Your task to perform on an android device: turn notification dots off Image 0: 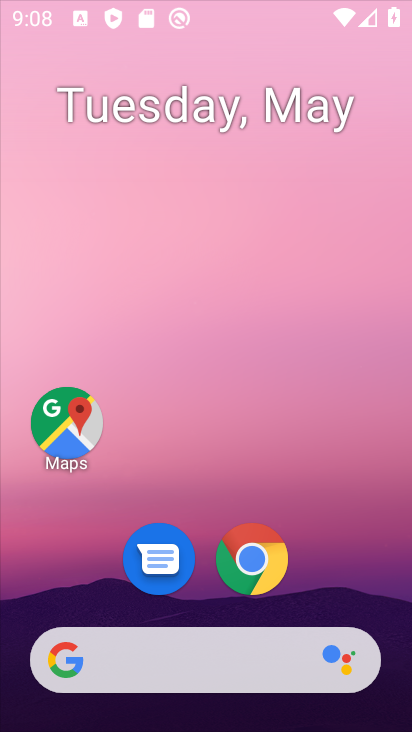
Step 0: click (220, 64)
Your task to perform on an android device: turn notification dots off Image 1: 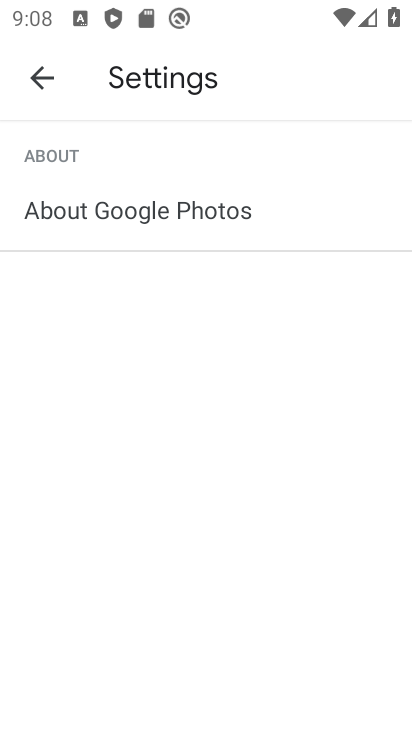
Step 1: press home button
Your task to perform on an android device: turn notification dots off Image 2: 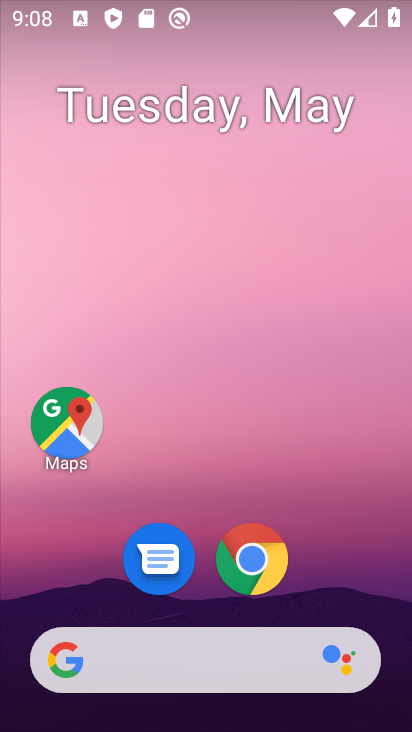
Step 2: drag from (189, 651) to (186, 125)
Your task to perform on an android device: turn notification dots off Image 3: 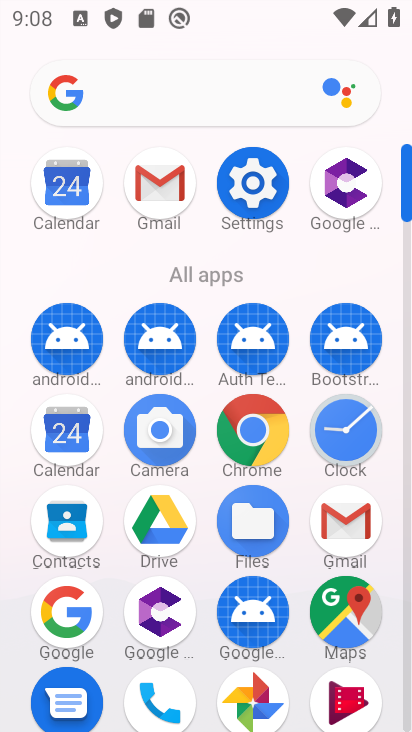
Step 3: click (181, 135)
Your task to perform on an android device: turn notification dots off Image 4: 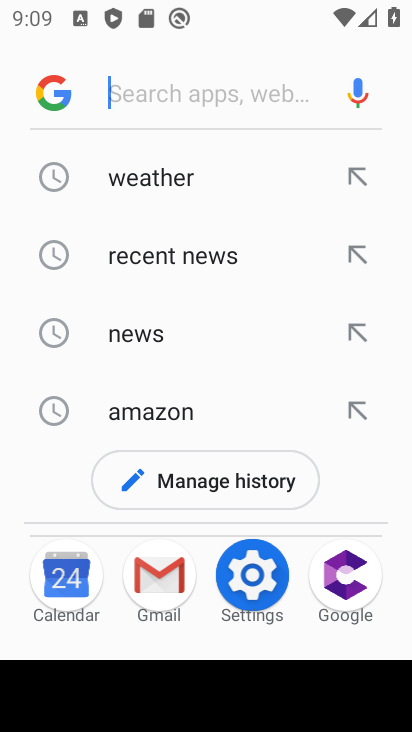
Step 4: press home button
Your task to perform on an android device: turn notification dots off Image 5: 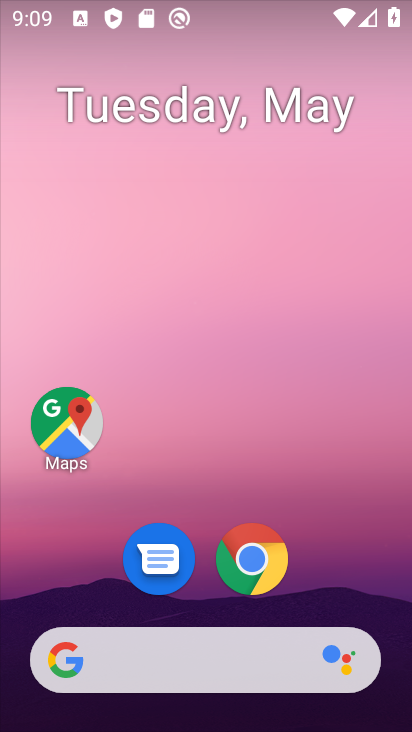
Step 5: drag from (183, 676) to (175, 173)
Your task to perform on an android device: turn notification dots off Image 6: 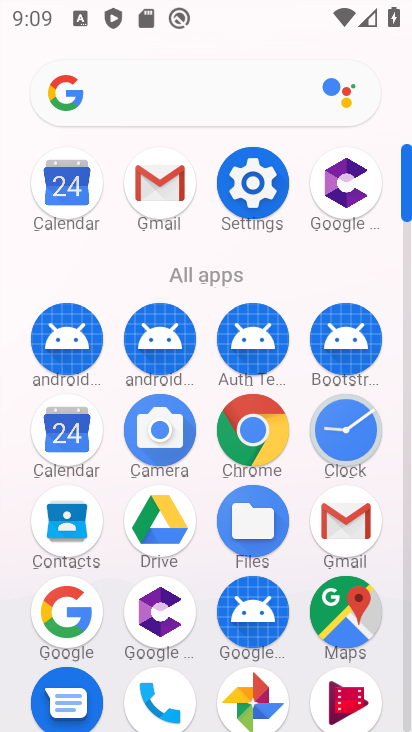
Step 6: click (263, 168)
Your task to perform on an android device: turn notification dots off Image 7: 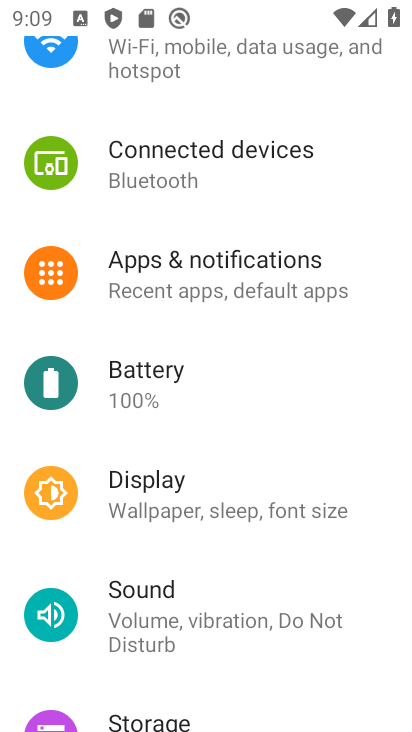
Step 7: click (163, 270)
Your task to perform on an android device: turn notification dots off Image 8: 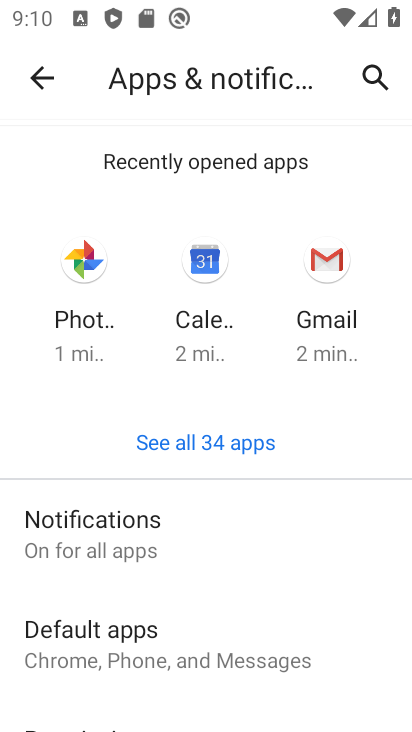
Step 8: click (186, 563)
Your task to perform on an android device: turn notification dots off Image 9: 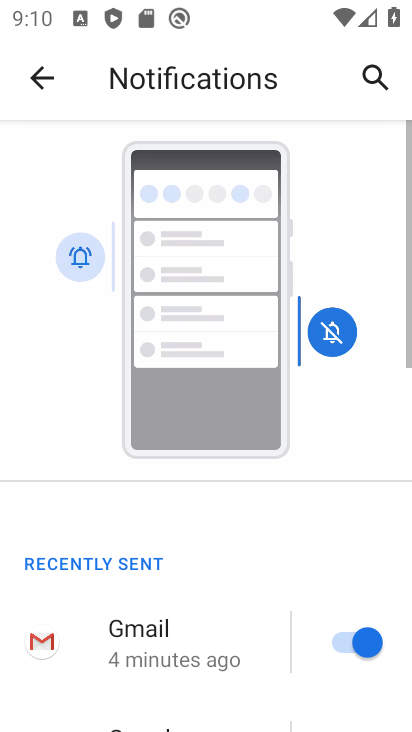
Step 9: drag from (200, 652) to (193, 280)
Your task to perform on an android device: turn notification dots off Image 10: 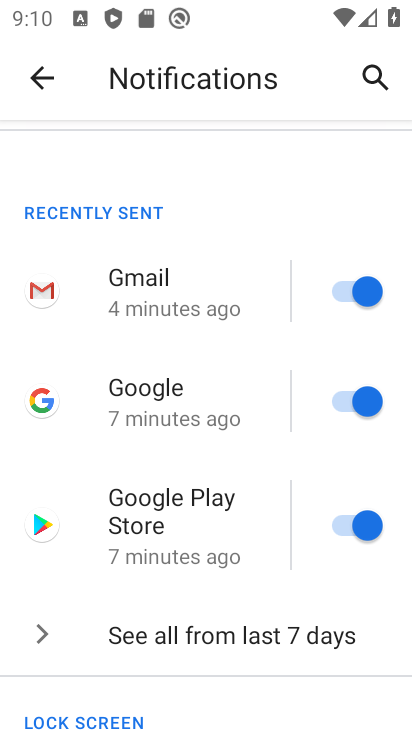
Step 10: click (176, 341)
Your task to perform on an android device: turn notification dots off Image 11: 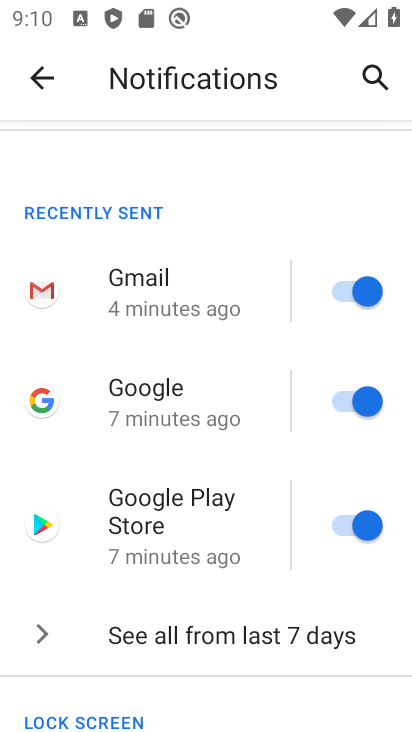
Step 11: drag from (204, 642) to (187, 230)
Your task to perform on an android device: turn notification dots off Image 12: 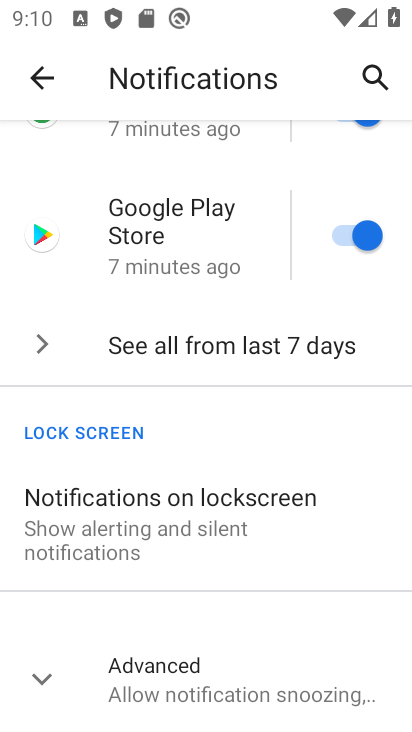
Step 12: click (218, 689)
Your task to perform on an android device: turn notification dots off Image 13: 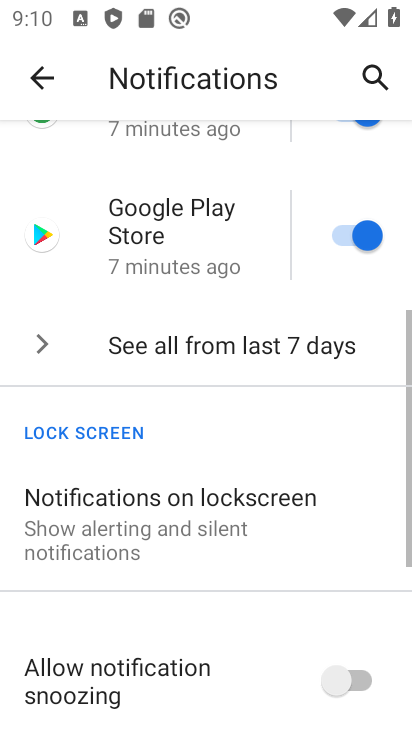
Step 13: task complete